Your task to perform on an android device: manage bookmarks in the chrome app Image 0: 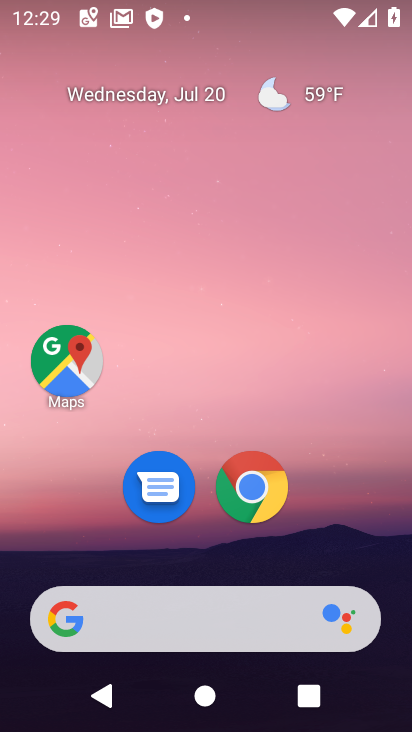
Step 0: click (239, 498)
Your task to perform on an android device: manage bookmarks in the chrome app Image 1: 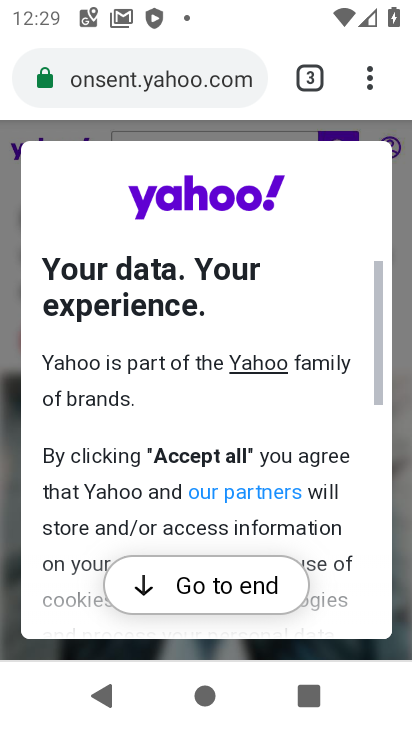
Step 1: drag from (367, 72) to (131, 302)
Your task to perform on an android device: manage bookmarks in the chrome app Image 2: 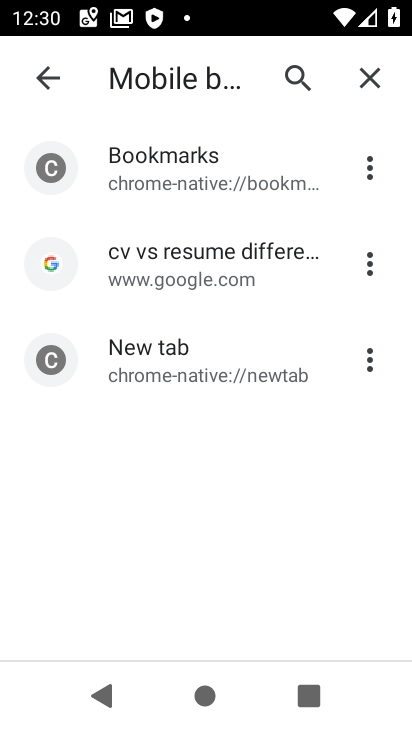
Step 2: click (369, 258)
Your task to perform on an android device: manage bookmarks in the chrome app Image 3: 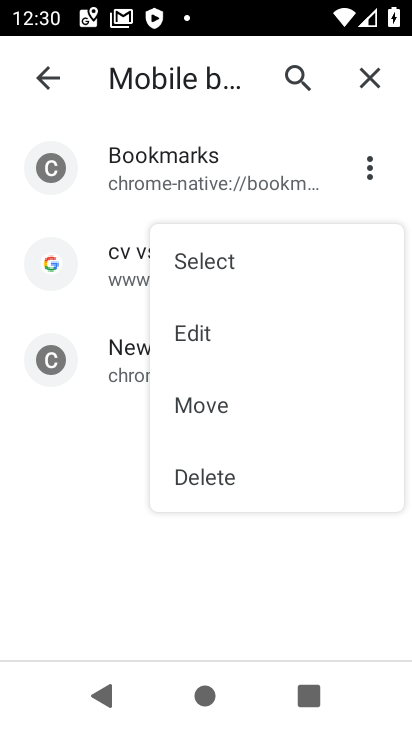
Step 3: click (208, 476)
Your task to perform on an android device: manage bookmarks in the chrome app Image 4: 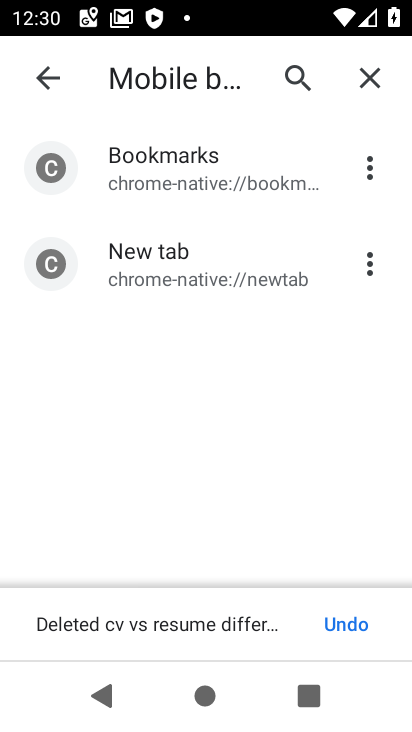
Step 4: task complete